Your task to perform on an android device: turn smart compose on in the gmail app Image 0: 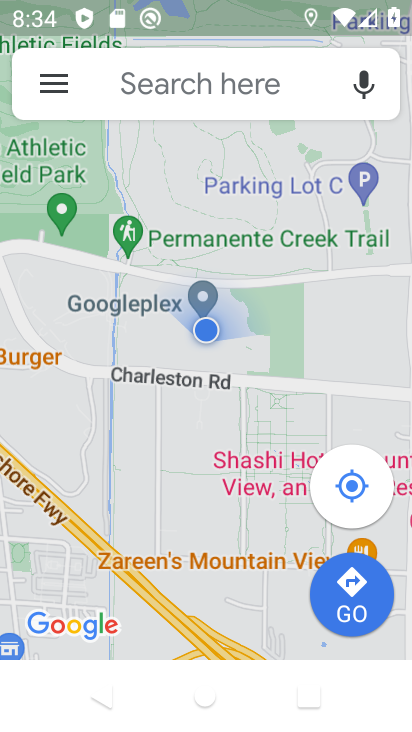
Step 0: press back button
Your task to perform on an android device: turn smart compose on in the gmail app Image 1: 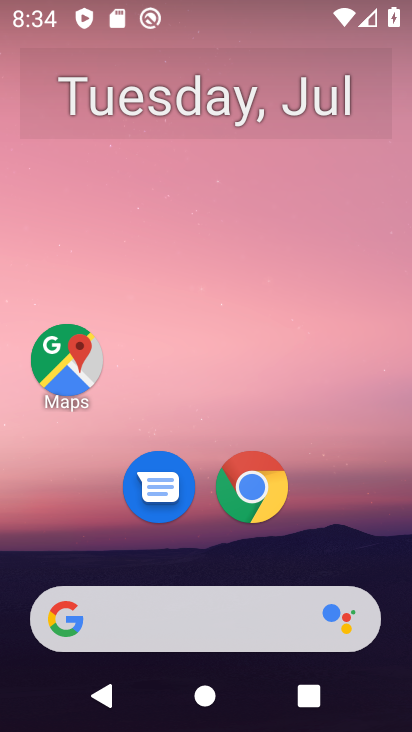
Step 1: drag from (150, 520) to (270, 4)
Your task to perform on an android device: turn smart compose on in the gmail app Image 2: 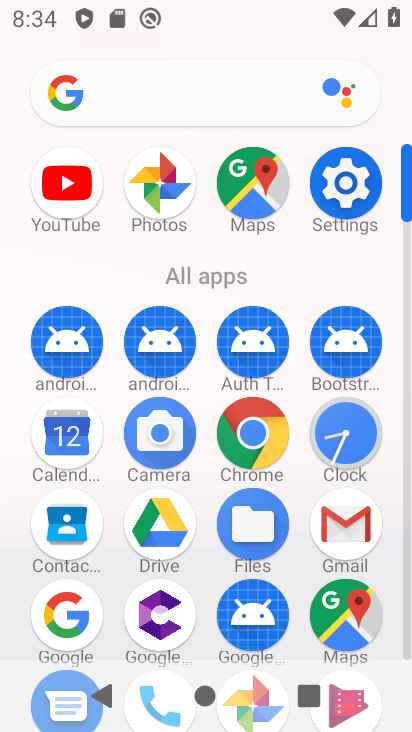
Step 2: click (358, 523)
Your task to perform on an android device: turn smart compose on in the gmail app Image 3: 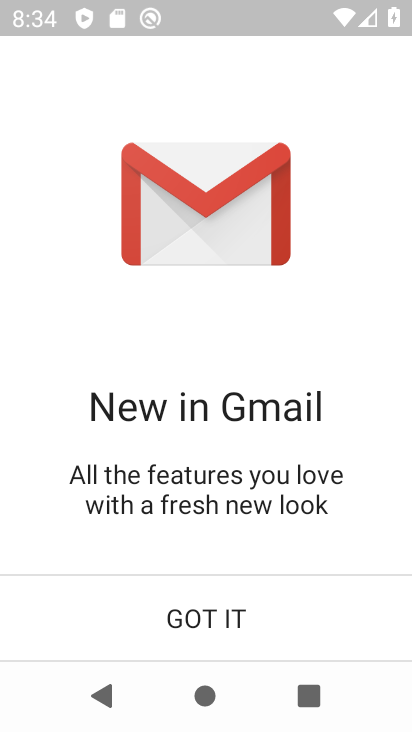
Step 3: click (226, 629)
Your task to perform on an android device: turn smart compose on in the gmail app Image 4: 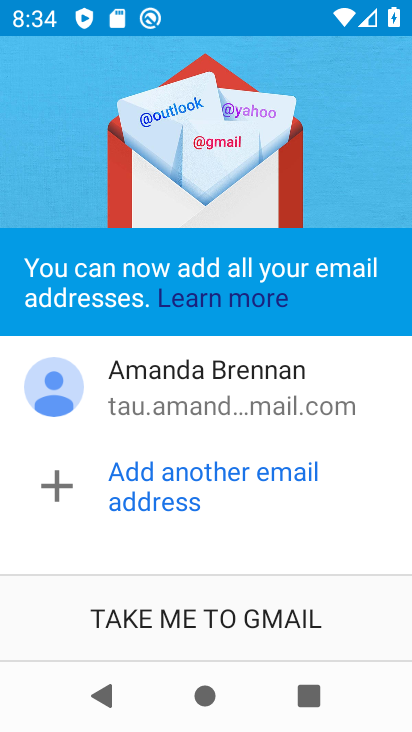
Step 4: click (199, 600)
Your task to perform on an android device: turn smart compose on in the gmail app Image 5: 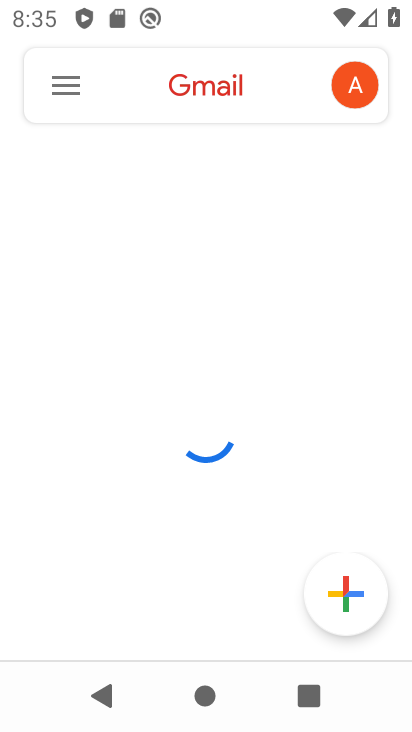
Step 5: click (63, 79)
Your task to perform on an android device: turn smart compose on in the gmail app Image 6: 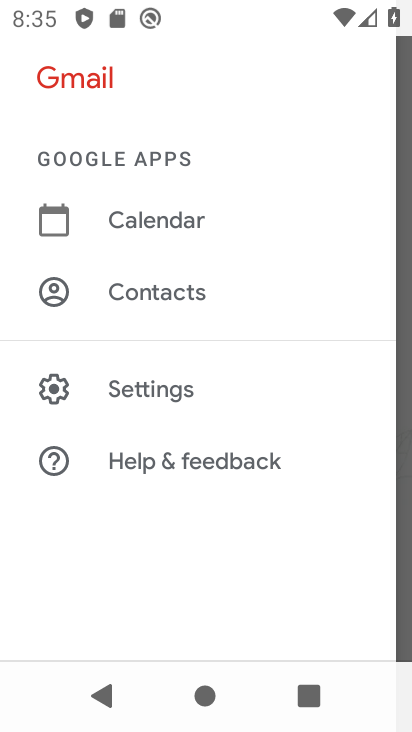
Step 6: click (164, 394)
Your task to perform on an android device: turn smart compose on in the gmail app Image 7: 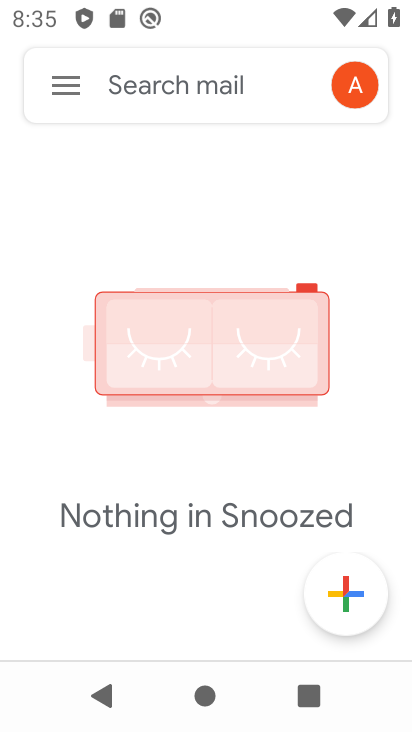
Step 7: click (56, 80)
Your task to perform on an android device: turn smart compose on in the gmail app Image 8: 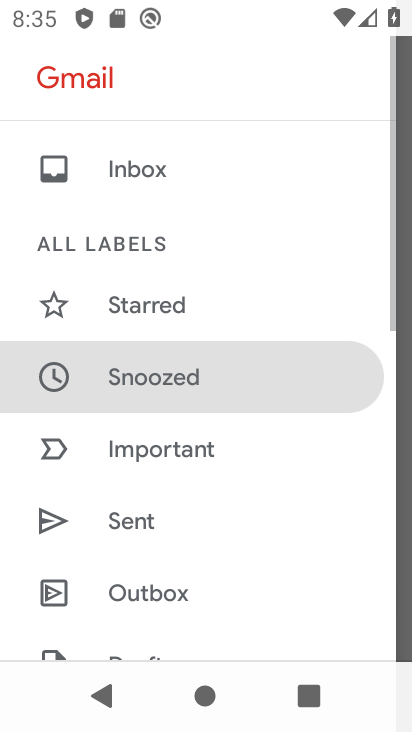
Step 8: drag from (173, 592) to (252, 20)
Your task to perform on an android device: turn smart compose on in the gmail app Image 9: 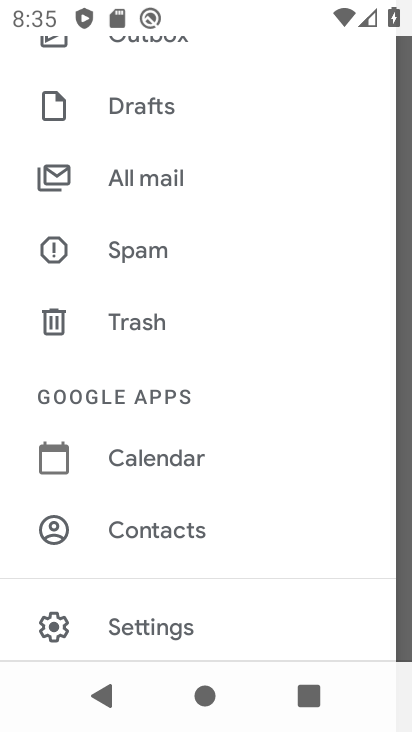
Step 9: click (160, 617)
Your task to perform on an android device: turn smart compose on in the gmail app Image 10: 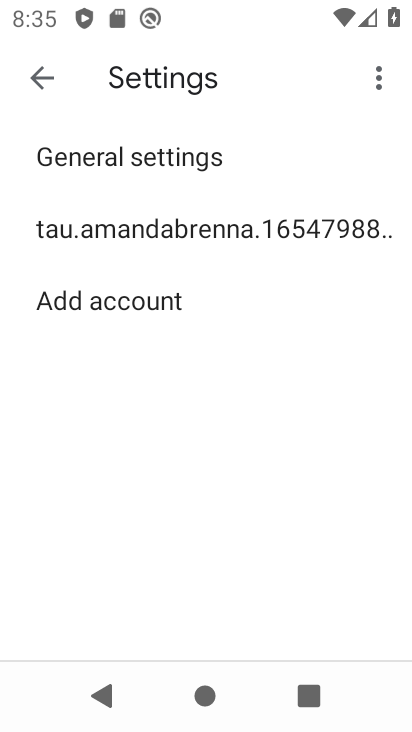
Step 10: click (150, 243)
Your task to perform on an android device: turn smart compose on in the gmail app Image 11: 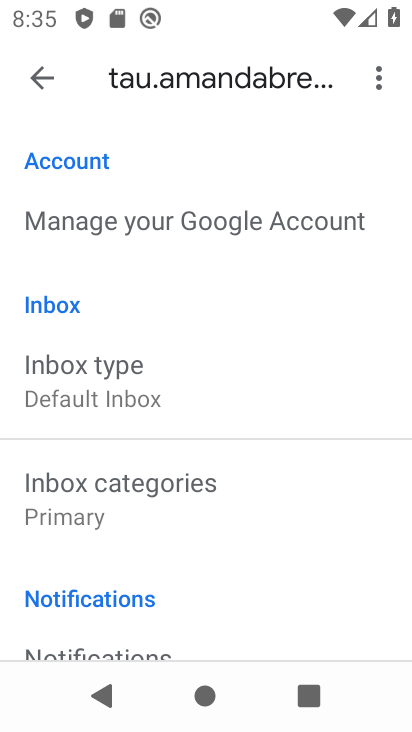
Step 11: task complete